Your task to perform on an android device: Open Google Chrome Image 0: 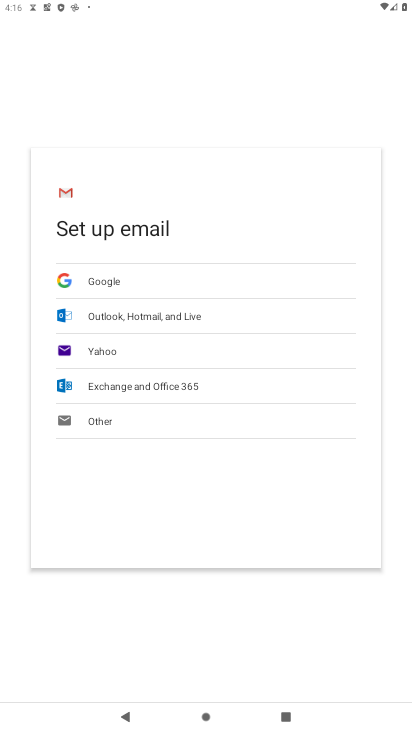
Step 0: press home button
Your task to perform on an android device: Open Google Chrome Image 1: 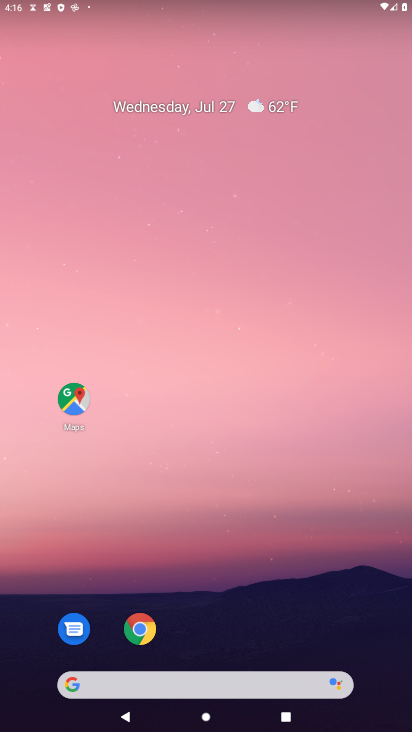
Step 1: click (142, 629)
Your task to perform on an android device: Open Google Chrome Image 2: 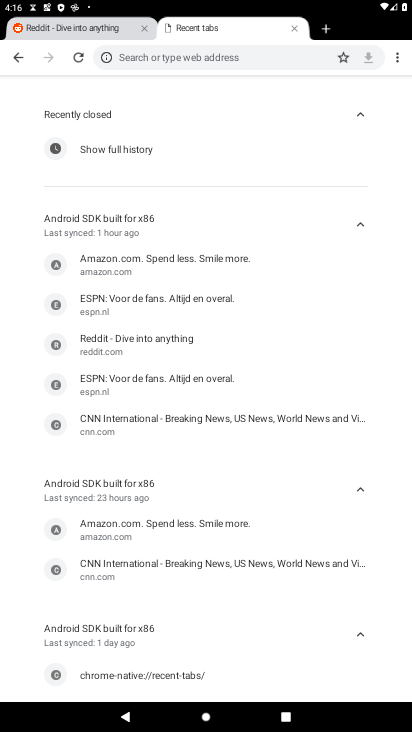
Step 2: task complete